Your task to perform on an android device: all mails in gmail Image 0: 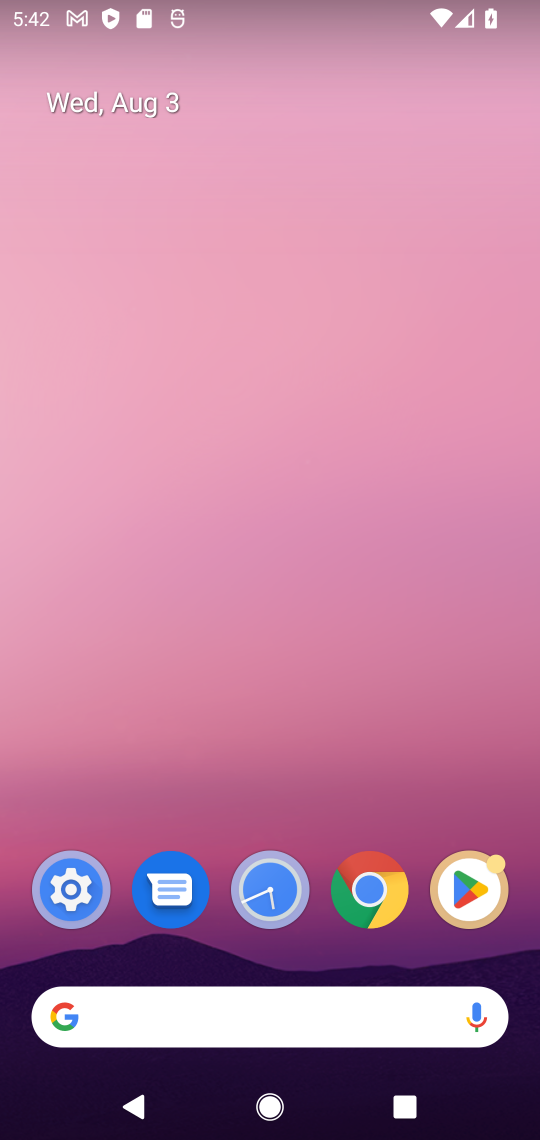
Step 0: drag from (341, 767) to (412, 51)
Your task to perform on an android device: all mails in gmail Image 1: 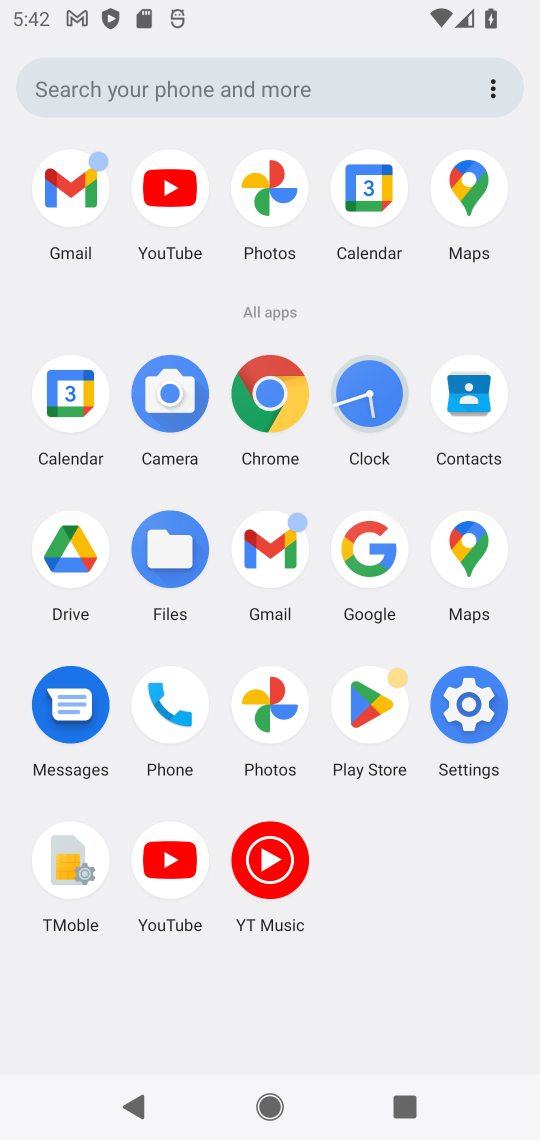
Step 1: click (267, 542)
Your task to perform on an android device: all mails in gmail Image 2: 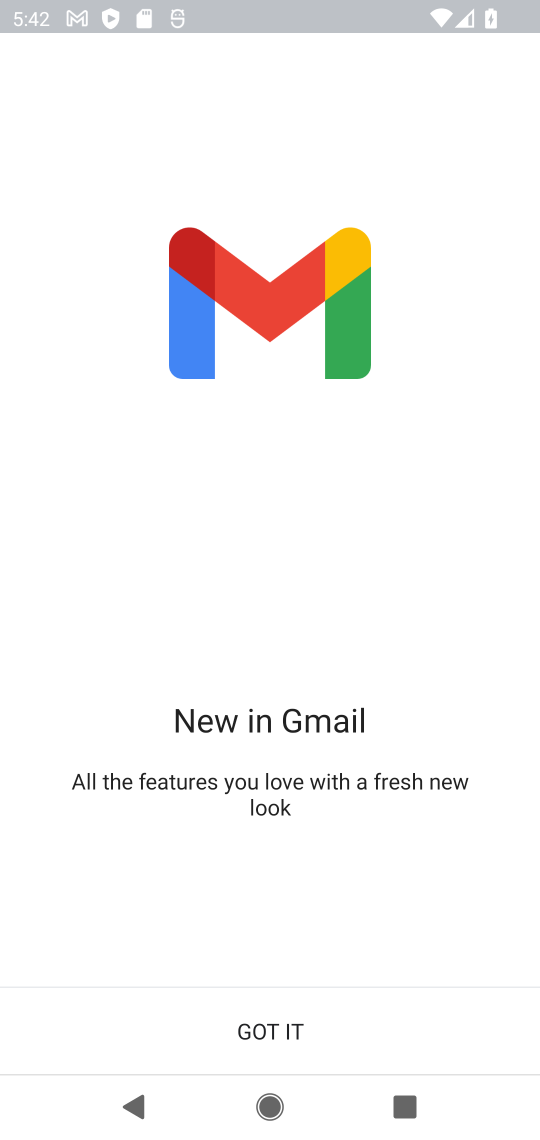
Step 2: click (322, 1029)
Your task to perform on an android device: all mails in gmail Image 3: 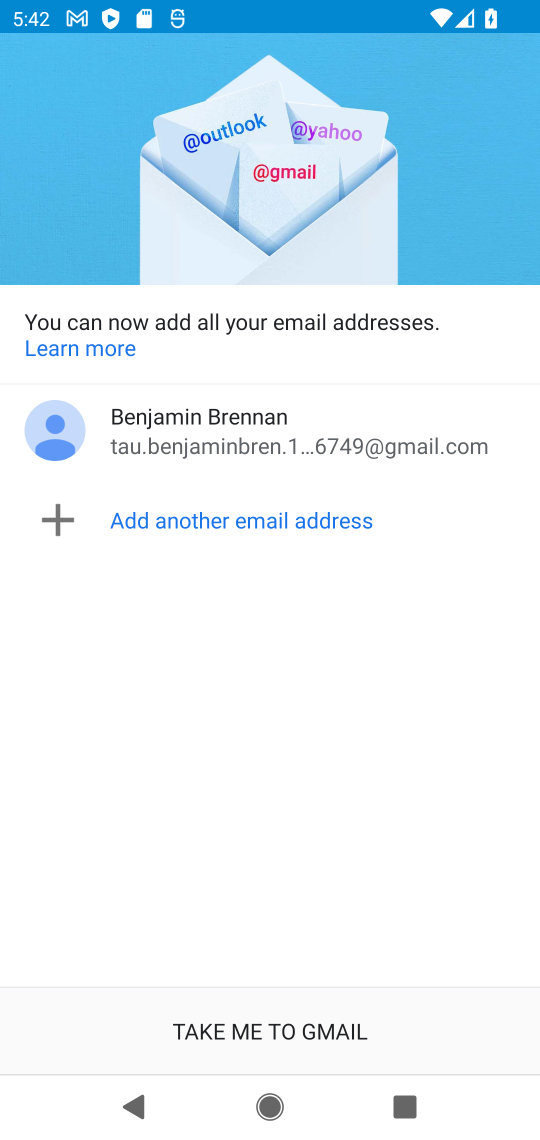
Step 3: click (322, 1029)
Your task to perform on an android device: all mails in gmail Image 4: 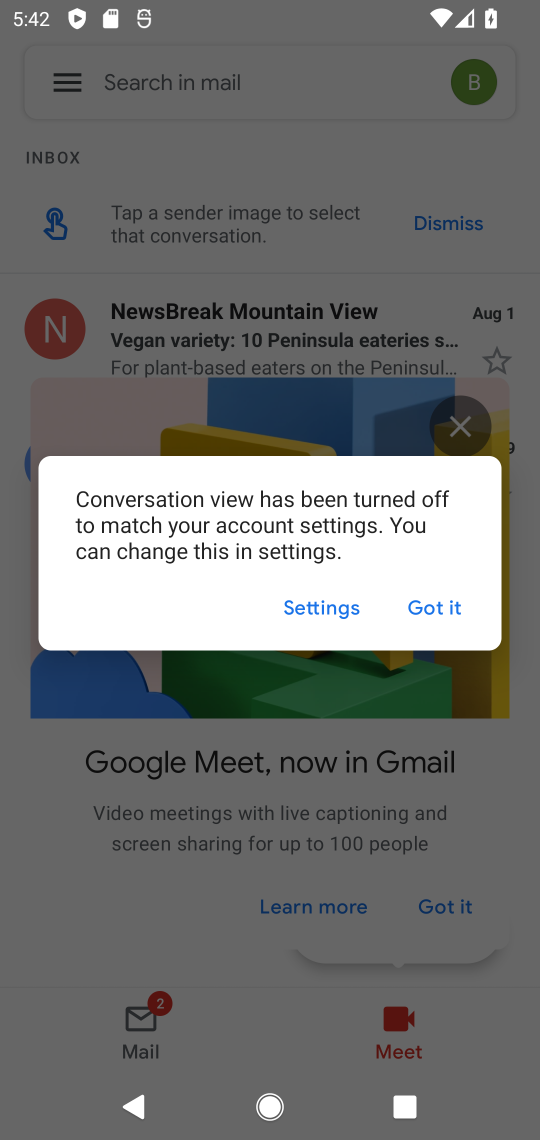
Step 4: click (436, 601)
Your task to perform on an android device: all mails in gmail Image 5: 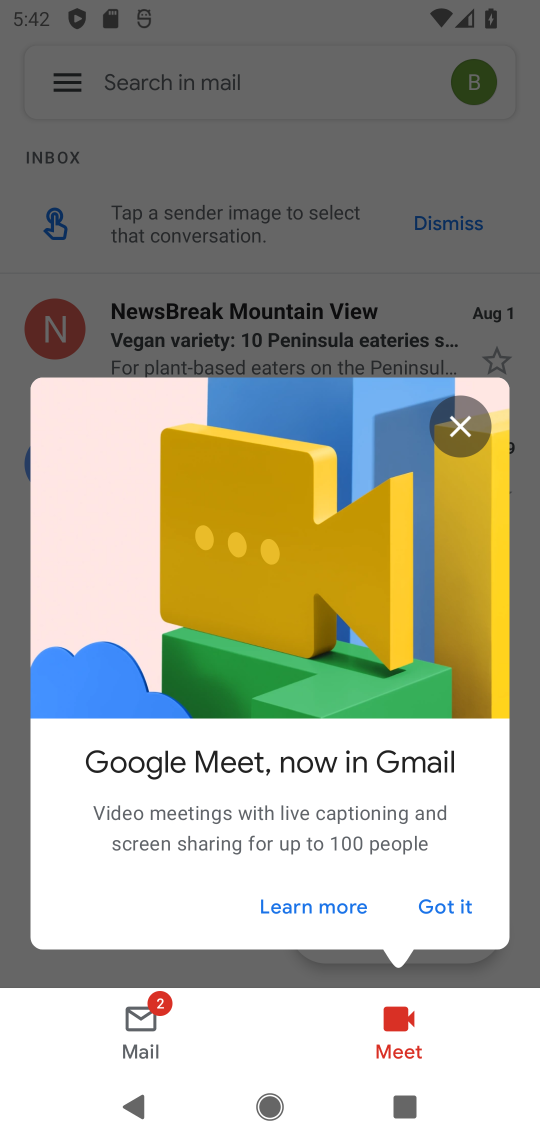
Step 5: click (473, 428)
Your task to perform on an android device: all mails in gmail Image 6: 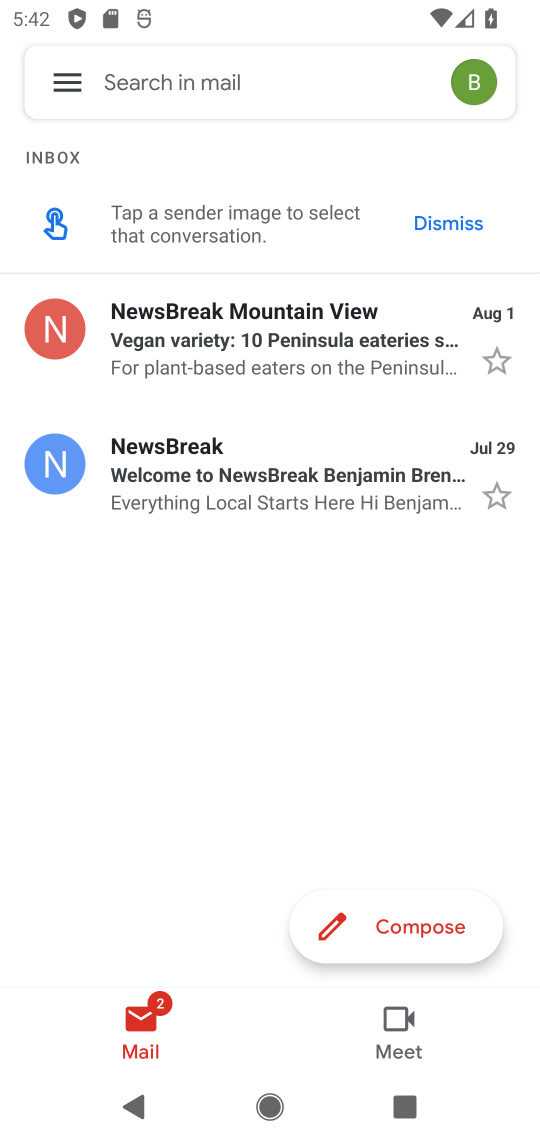
Step 6: click (72, 80)
Your task to perform on an android device: all mails in gmail Image 7: 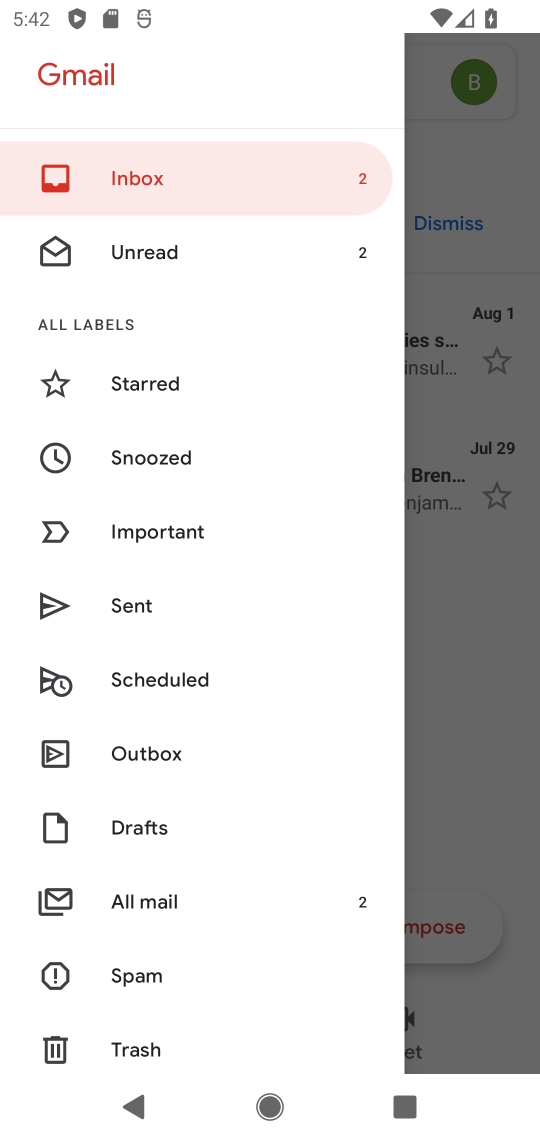
Step 7: click (150, 889)
Your task to perform on an android device: all mails in gmail Image 8: 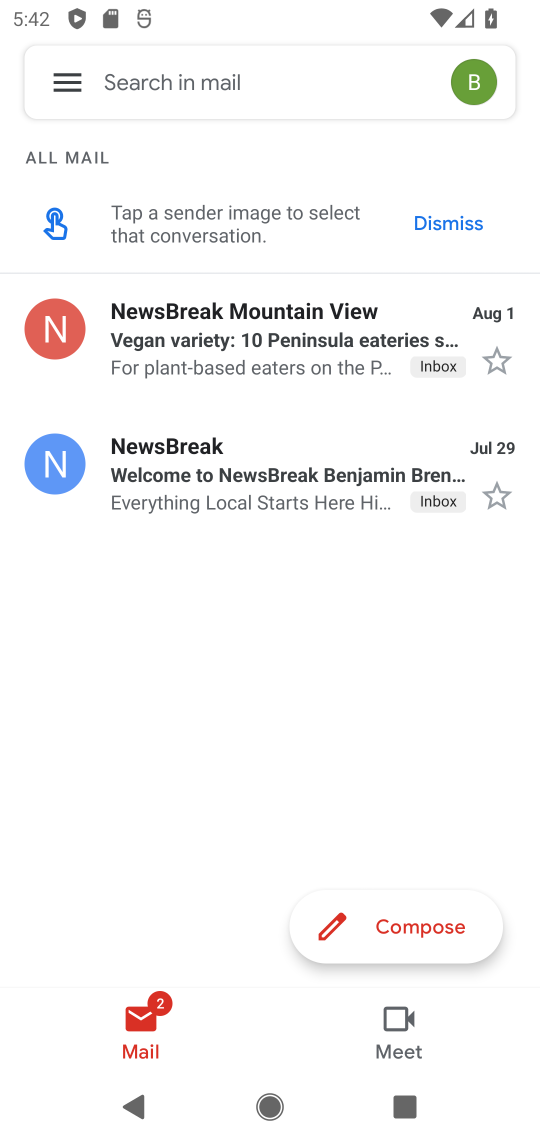
Step 8: task complete